Your task to perform on an android device: turn off notifications settings in the gmail app Image 0: 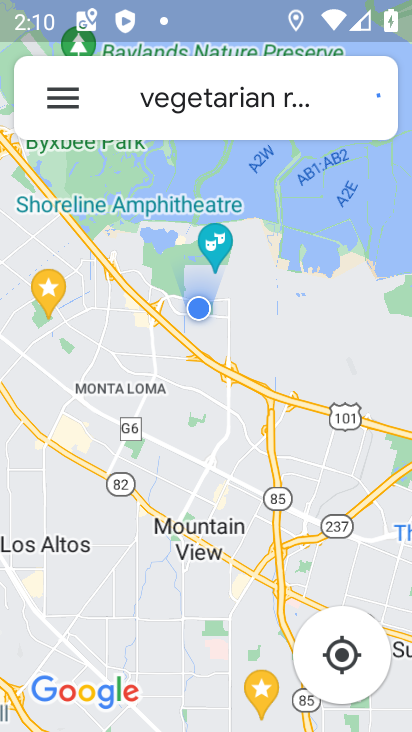
Step 0: press home button
Your task to perform on an android device: turn off notifications settings in the gmail app Image 1: 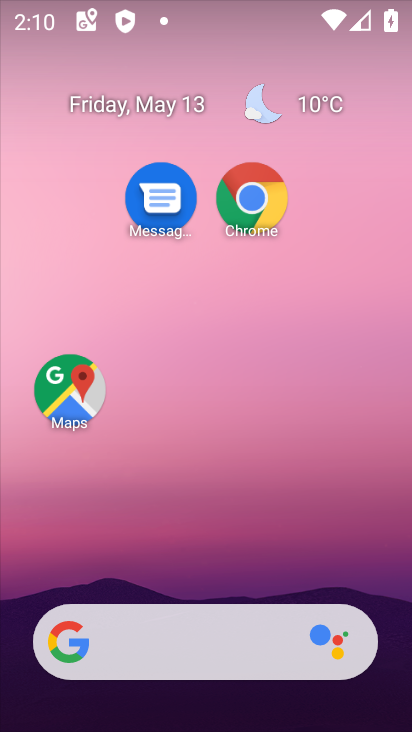
Step 1: drag from (210, 585) to (339, 27)
Your task to perform on an android device: turn off notifications settings in the gmail app Image 2: 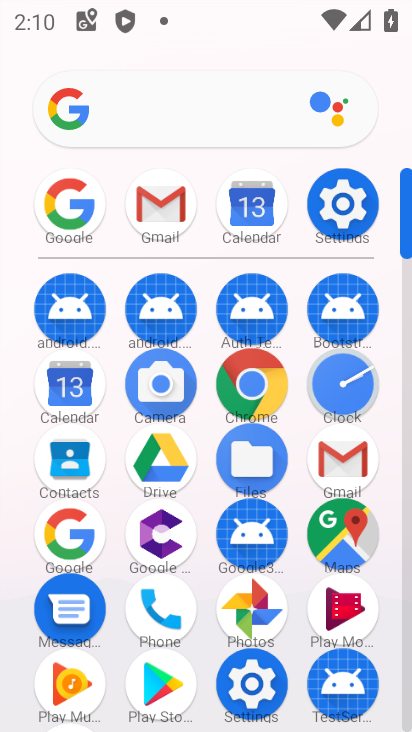
Step 2: click (338, 446)
Your task to perform on an android device: turn off notifications settings in the gmail app Image 3: 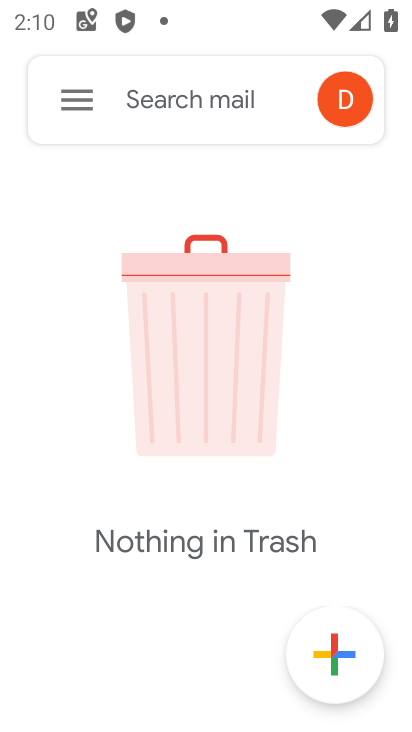
Step 3: click (62, 92)
Your task to perform on an android device: turn off notifications settings in the gmail app Image 4: 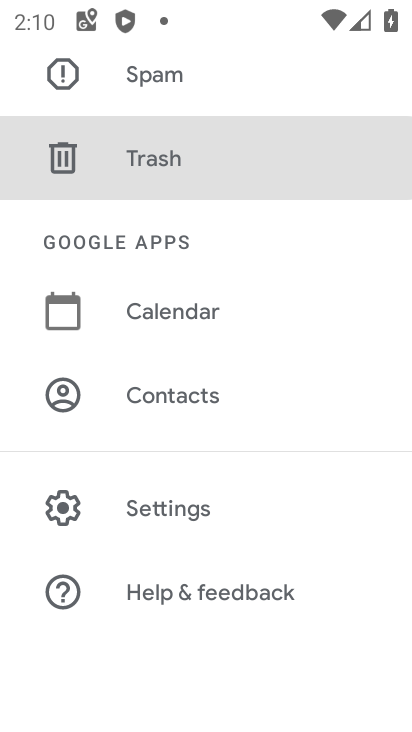
Step 4: click (156, 504)
Your task to perform on an android device: turn off notifications settings in the gmail app Image 5: 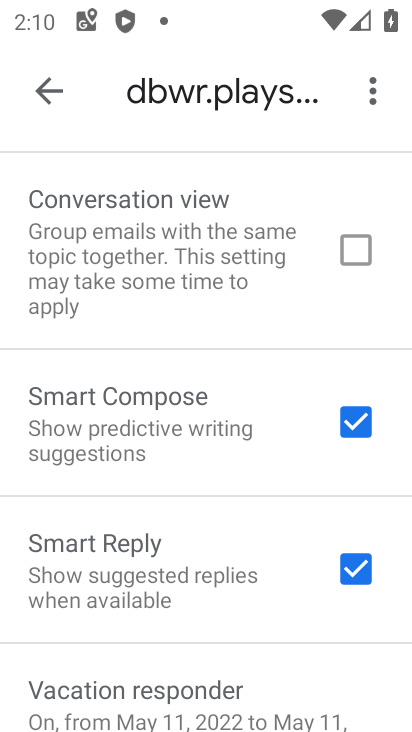
Step 5: click (60, 84)
Your task to perform on an android device: turn off notifications settings in the gmail app Image 6: 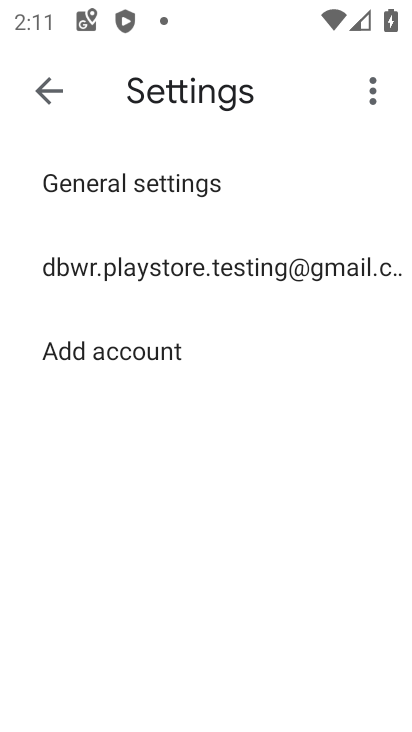
Step 6: click (146, 152)
Your task to perform on an android device: turn off notifications settings in the gmail app Image 7: 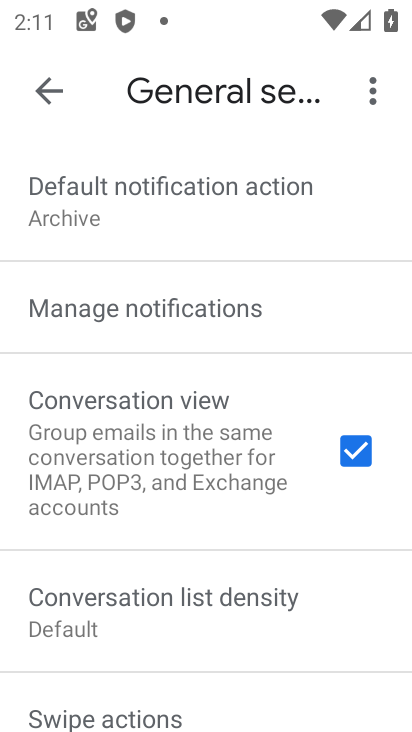
Step 7: click (155, 290)
Your task to perform on an android device: turn off notifications settings in the gmail app Image 8: 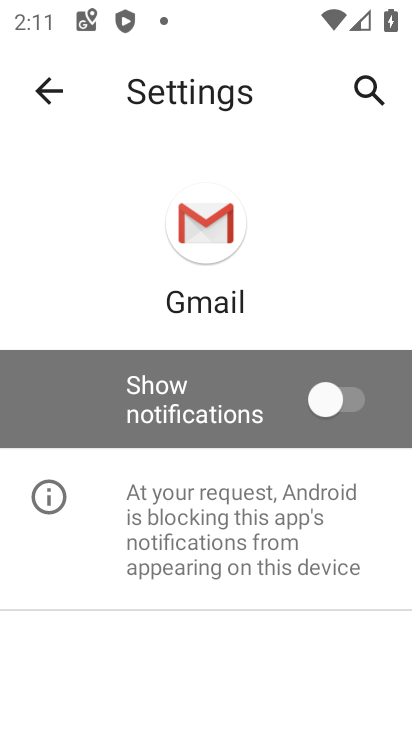
Step 8: task complete